Your task to perform on an android device: Turn off the flashlight Image 0: 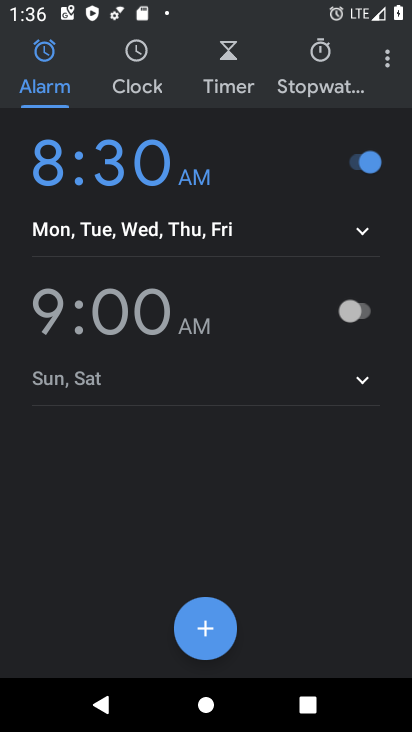
Step 0: press home button
Your task to perform on an android device: Turn off the flashlight Image 1: 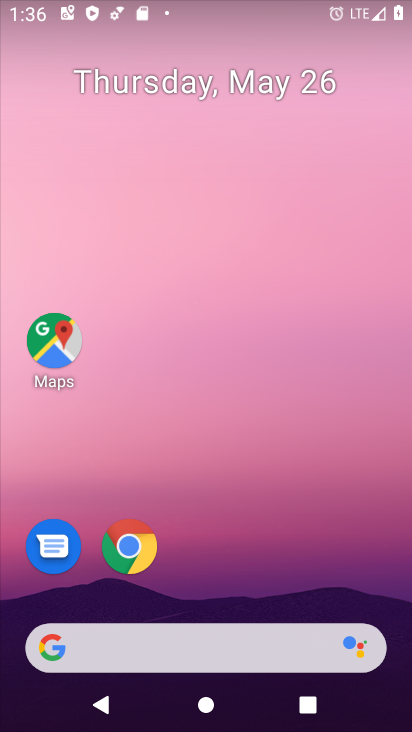
Step 1: drag from (383, 609) to (311, 348)
Your task to perform on an android device: Turn off the flashlight Image 2: 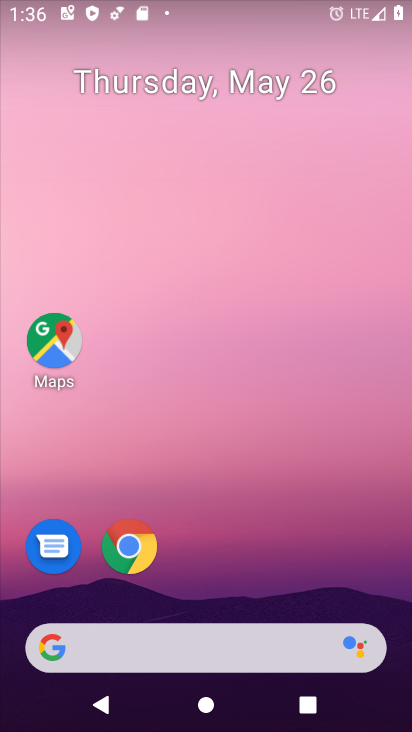
Step 2: drag from (394, 655) to (308, 153)
Your task to perform on an android device: Turn off the flashlight Image 3: 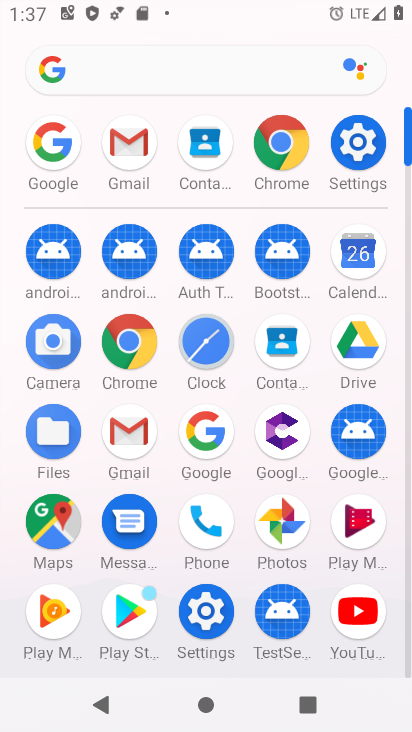
Step 3: click (191, 606)
Your task to perform on an android device: Turn off the flashlight Image 4: 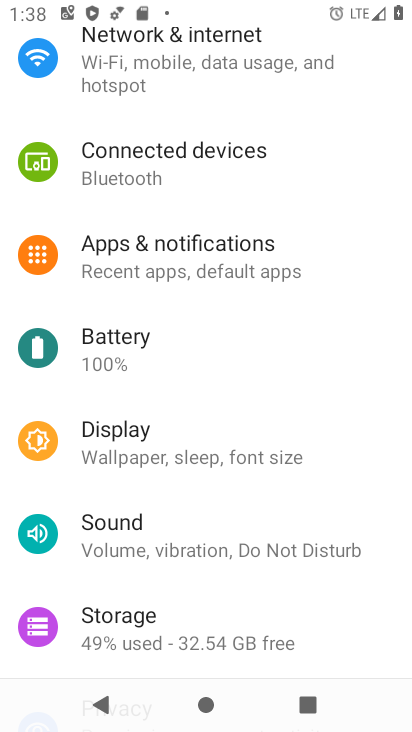
Step 4: task complete